Your task to perform on an android device: Show me productivity apps on the Play Store Image 0: 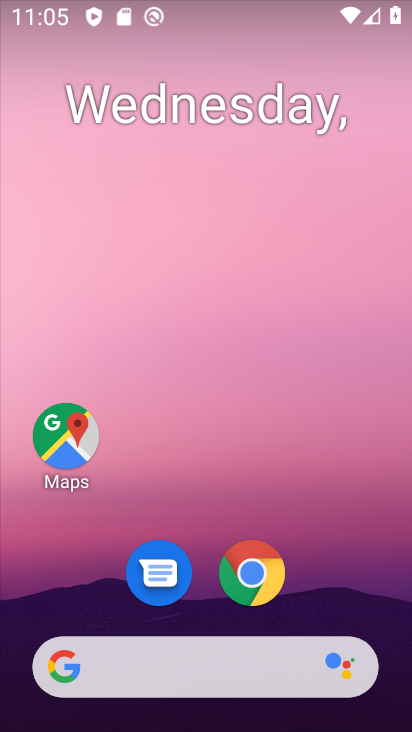
Step 0: drag from (392, 645) to (341, 245)
Your task to perform on an android device: Show me productivity apps on the Play Store Image 1: 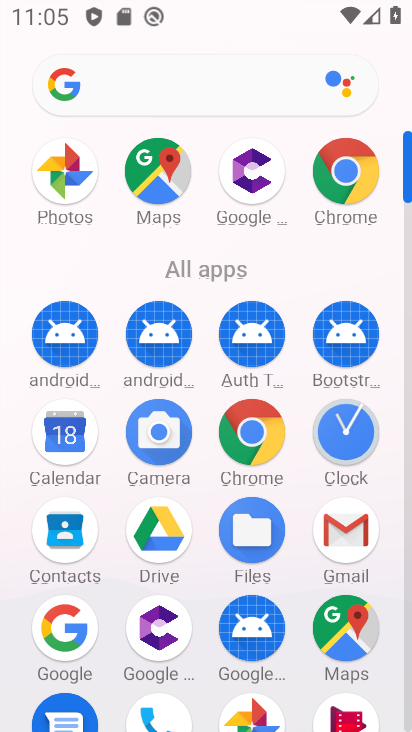
Step 1: click (408, 694)
Your task to perform on an android device: Show me productivity apps on the Play Store Image 2: 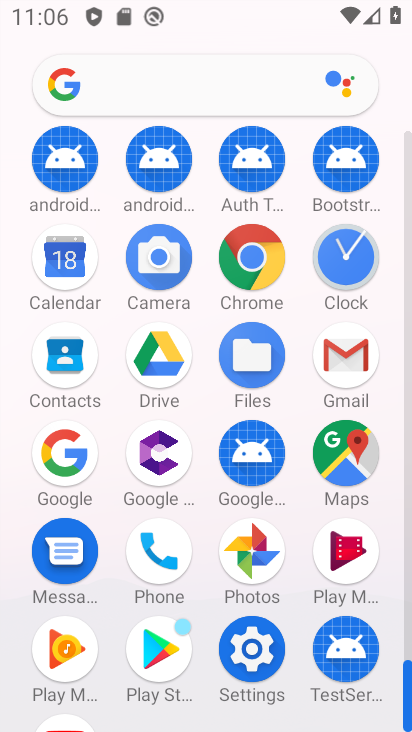
Step 2: click (167, 646)
Your task to perform on an android device: Show me productivity apps on the Play Store Image 3: 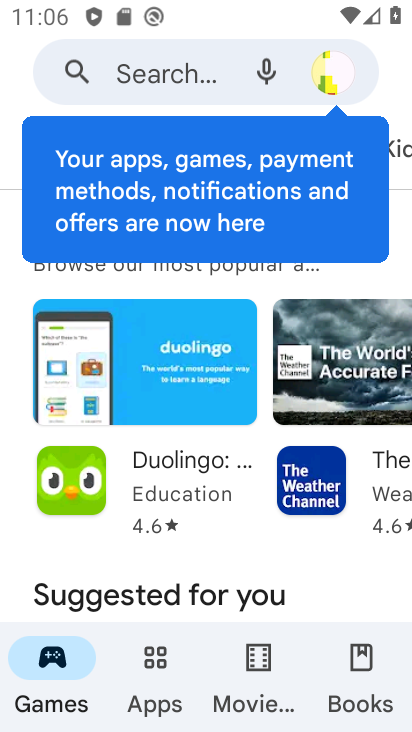
Step 3: drag from (281, 573) to (249, 127)
Your task to perform on an android device: Show me productivity apps on the Play Store Image 4: 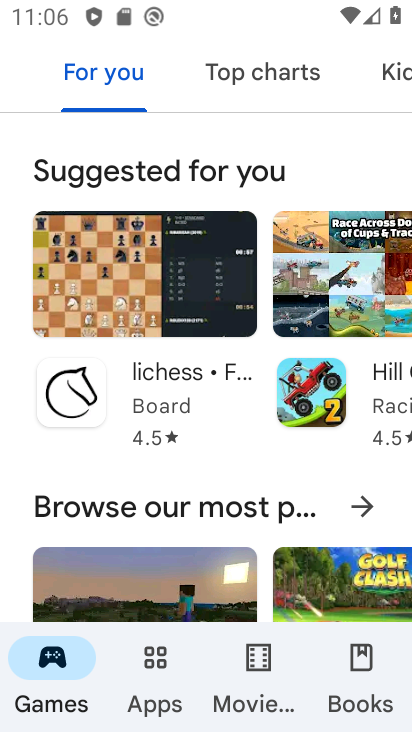
Step 4: drag from (249, 127) to (242, 380)
Your task to perform on an android device: Show me productivity apps on the Play Store Image 5: 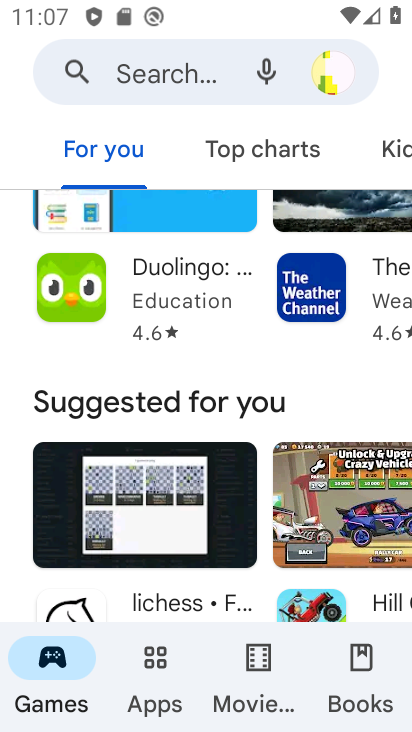
Step 5: drag from (389, 153) to (162, 141)
Your task to perform on an android device: Show me productivity apps on the Play Store Image 6: 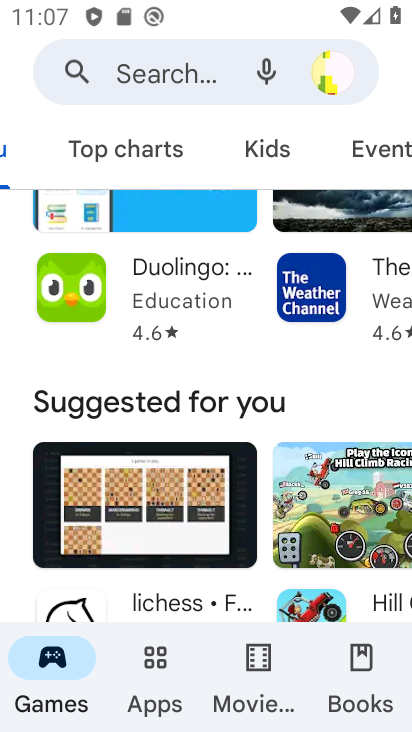
Step 6: click (149, 648)
Your task to perform on an android device: Show me productivity apps on the Play Store Image 7: 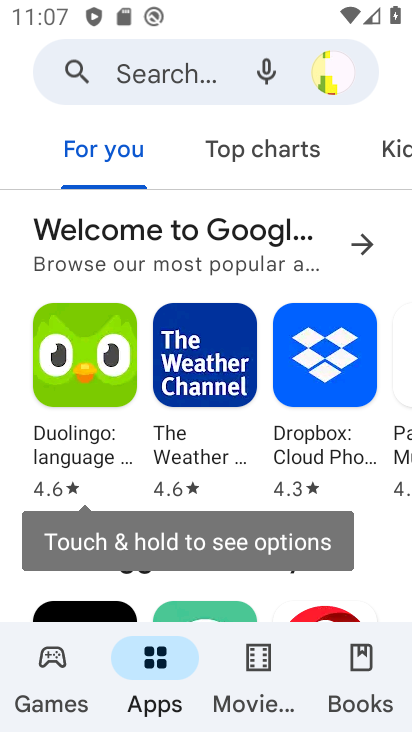
Step 7: drag from (378, 153) to (110, 151)
Your task to perform on an android device: Show me productivity apps on the Play Store Image 8: 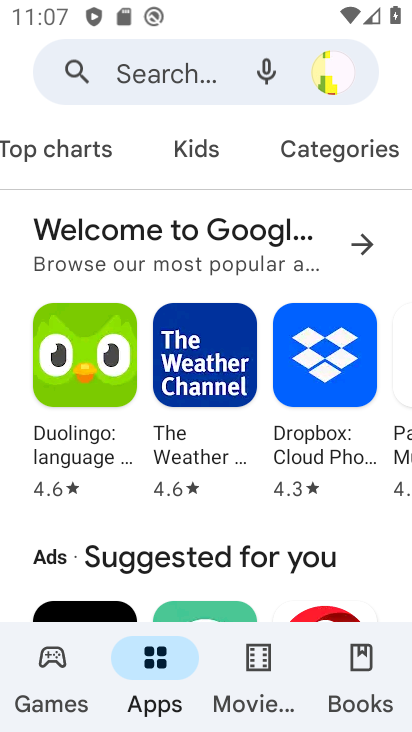
Step 8: click (290, 158)
Your task to perform on an android device: Show me productivity apps on the Play Store Image 9: 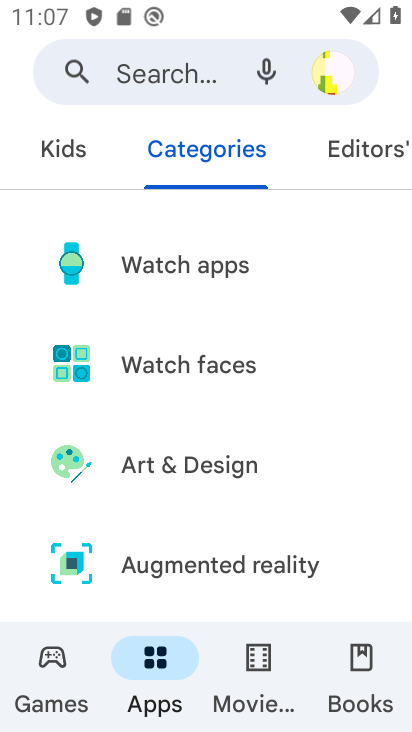
Step 9: drag from (275, 586) to (271, 225)
Your task to perform on an android device: Show me productivity apps on the Play Store Image 10: 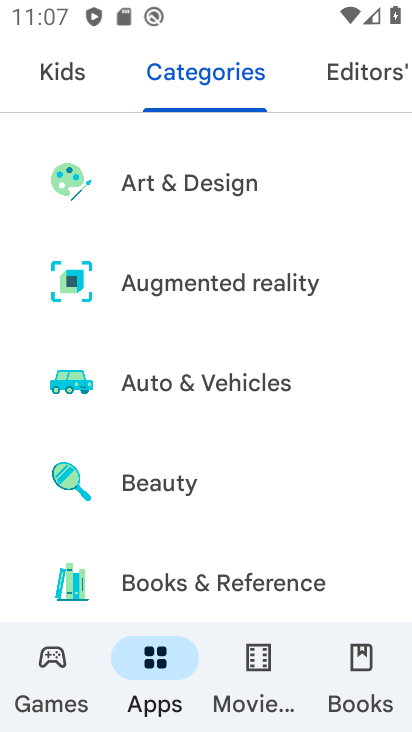
Step 10: drag from (263, 538) to (227, 211)
Your task to perform on an android device: Show me productivity apps on the Play Store Image 11: 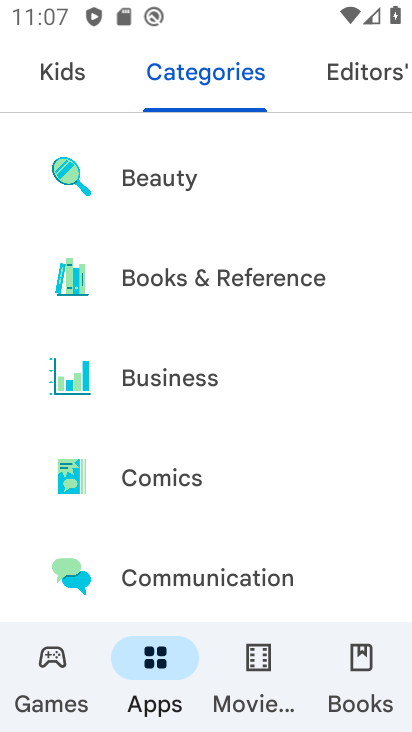
Step 11: drag from (318, 524) to (302, 154)
Your task to perform on an android device: Show me productivity apps on the Play Store Image 12: 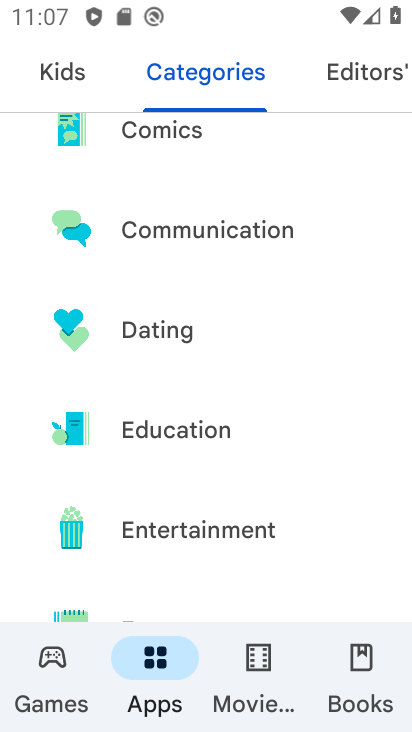
Step 12: drag from (335, 504) to (282, 123)
Your task to perform on an android device: Show me productivity apps on the Play Store Image 13: 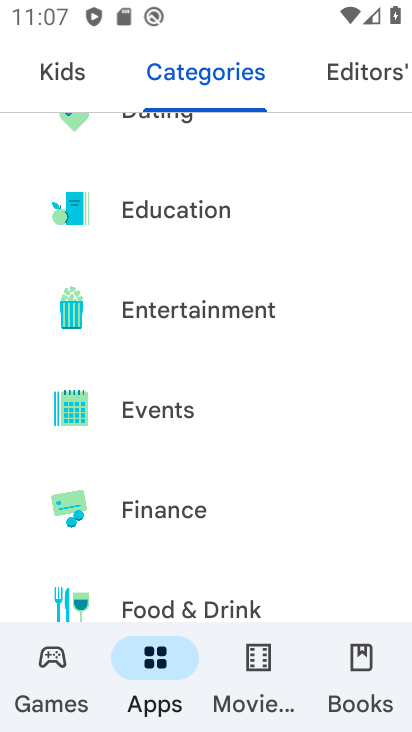
Step 13: drag from (295, 529) to (218, 197)
Your task to perform on an android device: Show me productivity apps on the Play Store Image 14: 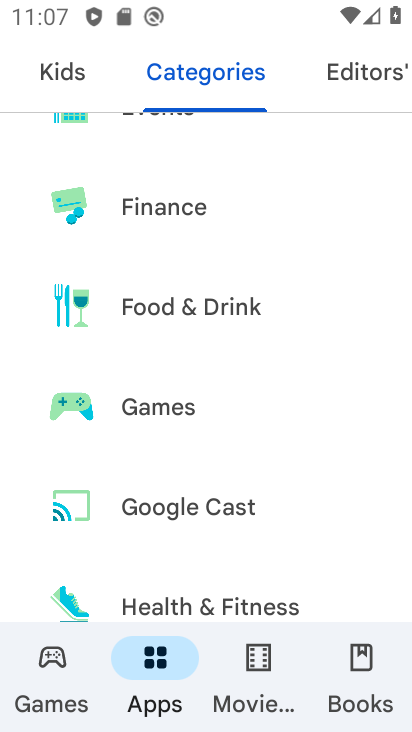
Step 14: drag from (283, 557) to (312, 166)
Your task to perform on an android device: Show me productivity apps on the Play Store Image 15: 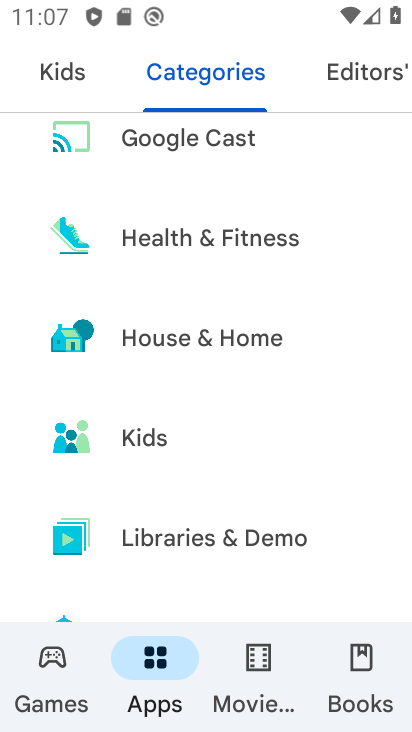
Step 15: drag from (342, 587) to (351, 239)
Your task to perform on an android device: Show me productivity apps on the Play Store Image 16: 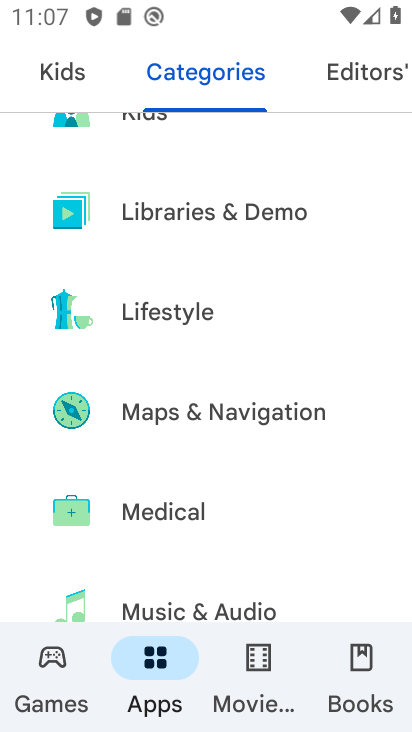
Step 16: drag from (334, 516) to (318, 74)
Your task to perform on an android device: Show me productivity apps on the Play Store Image 17: 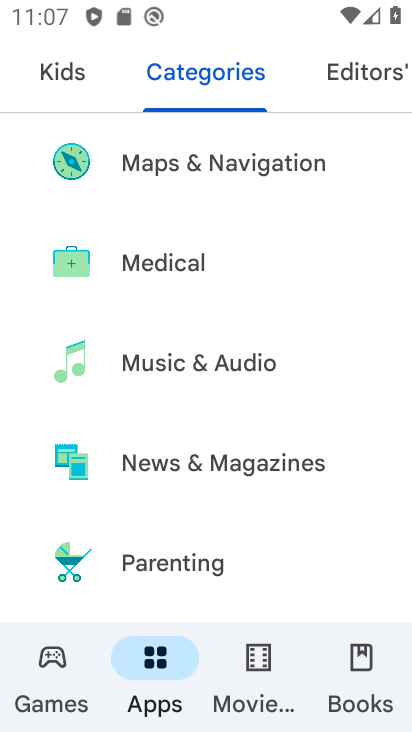
Step 17: drag from (246, 579) to (290, 152)
Your task to perform on an android device: Show me productivity apps on the Play Store Image 18: 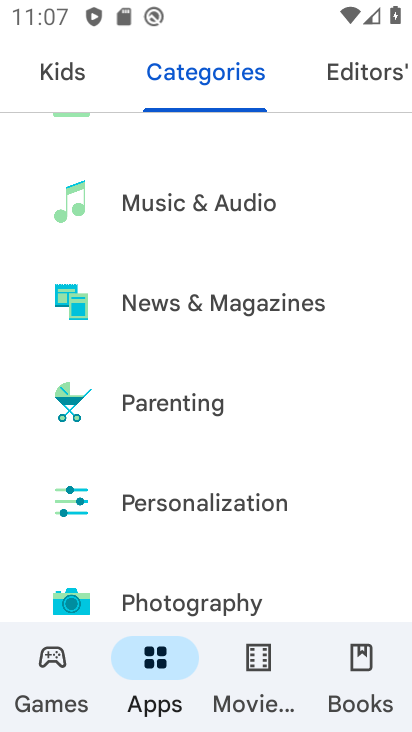
Step 18: drag from (298, 562) to (303, 142)
Your task to perform on an android device: Show me productivity apps on the Play Store Image 19: 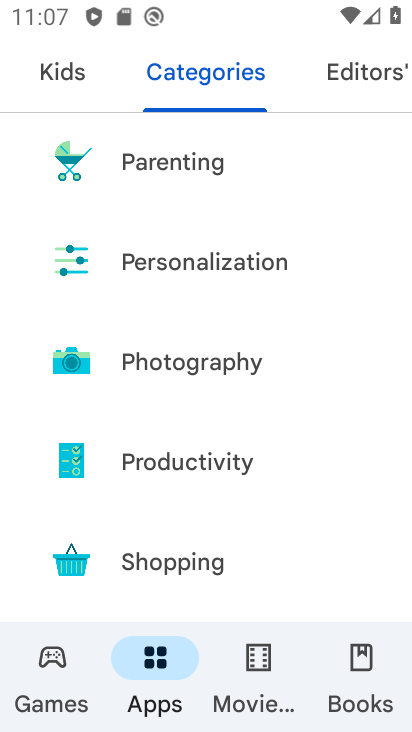
Step 19: click (249, 449)
Your task to perform on an android device: Show me productivity apps on the Play Store Image 20: 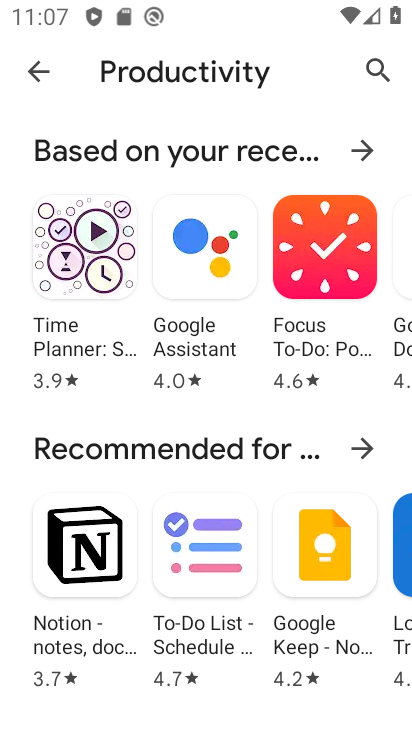
Step 20: task complete